Your task to perform on an android device: change your default location settings in chrome Image 0: 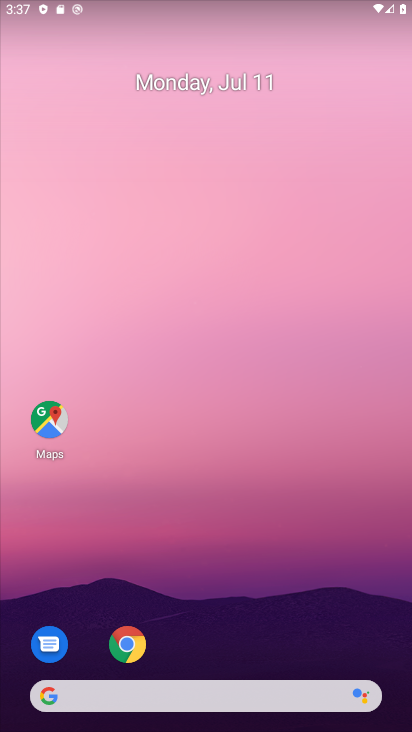
Step 0: drag from (226, 664) to (250, 30)
Your task to perform on an android device: change your default location settings in chrome Image 1: 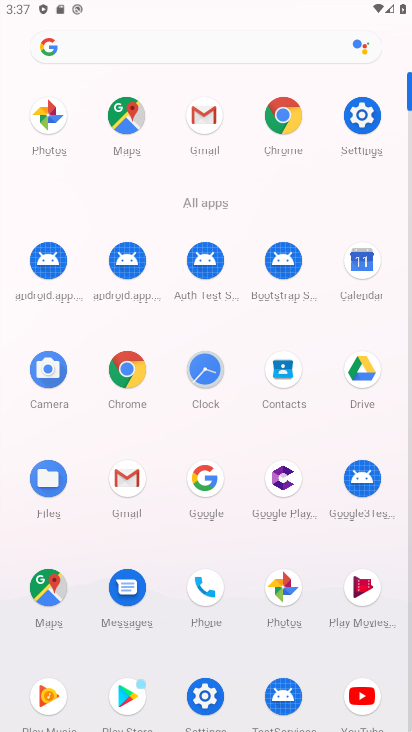
Step 1: click (279, 109)
Your task to perform on an android device: change your default location settings in chrome Image 2: 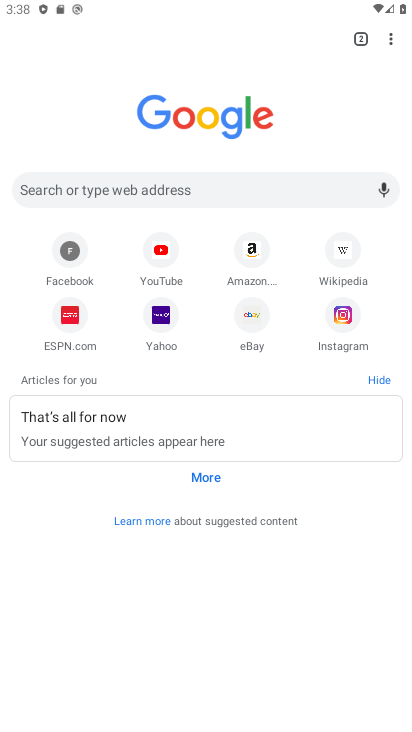
Step 2: click (390, 36)
Your task to perform on an android device: change your default location settings in chrome Image 3: 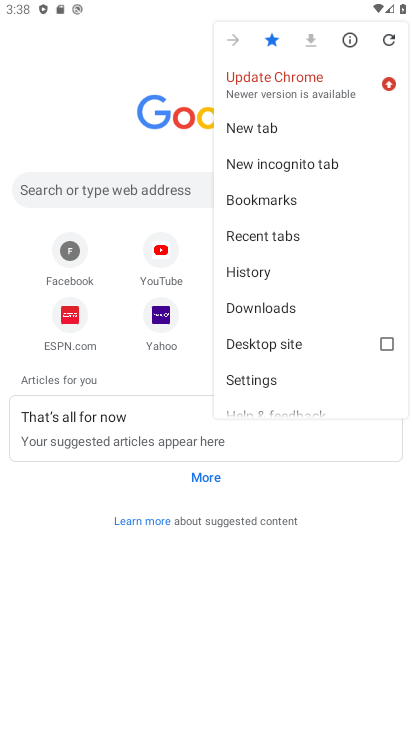
Step 3: click (277, 373)
Your task to perform on an android device: change your default location settings in chrome Image 4: 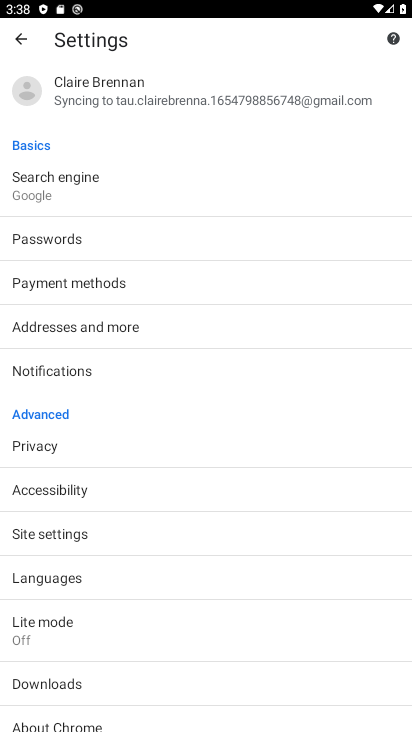
Step 4: click (100, 531)
Your task to perform on an android device: change your default location settings in chrome Image 5: 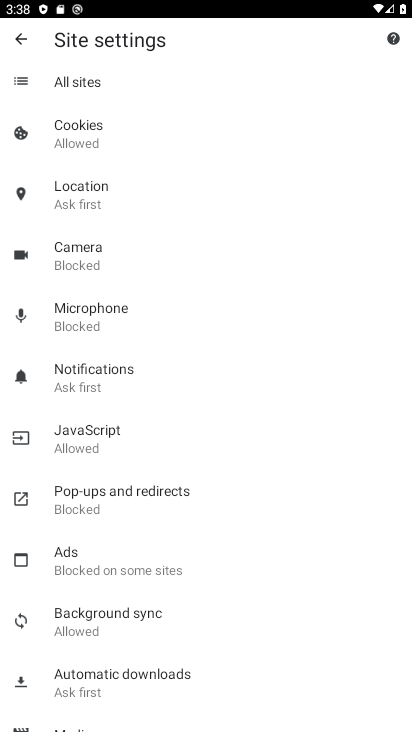
Step 5: click (125, 186)
Your task to perform on an android device: change your default location settings in chrome Image 6: 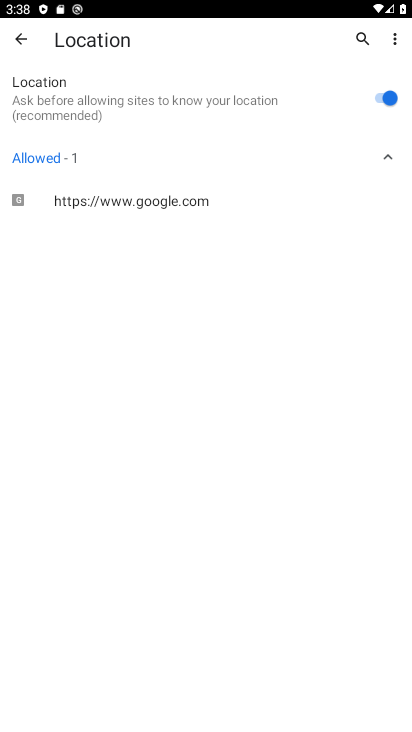
Step 6: click (175, 198)
Your task to perform on an android device: change your default location settings in chrome Image 7: 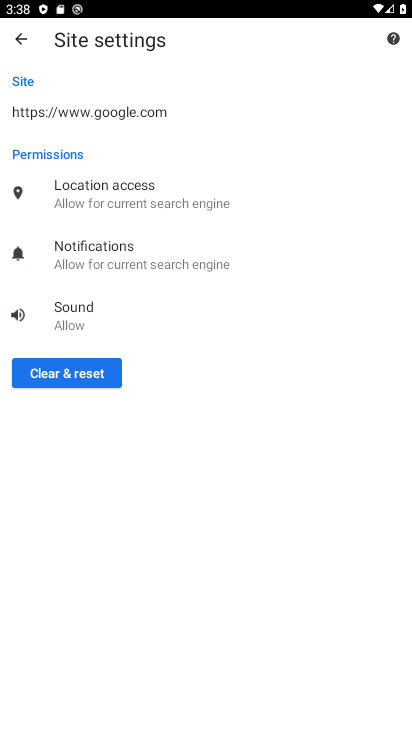
Step 7: task complete